Your task to perform on an android device: Search for logitech g502 on walmart.com, select the first entry, and add it to the cart. Image 0: 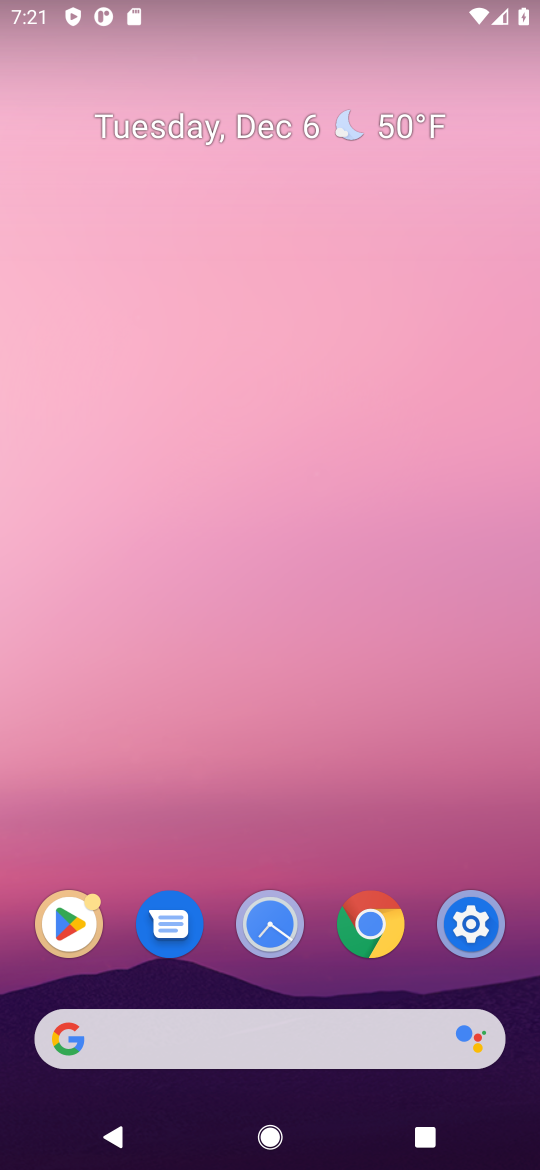
Step 0: click (329, 1002)
Your task to perform on an android device: Search for logitech g502 on walmart.com, select the first entry, and add it to the cart. Image 1: 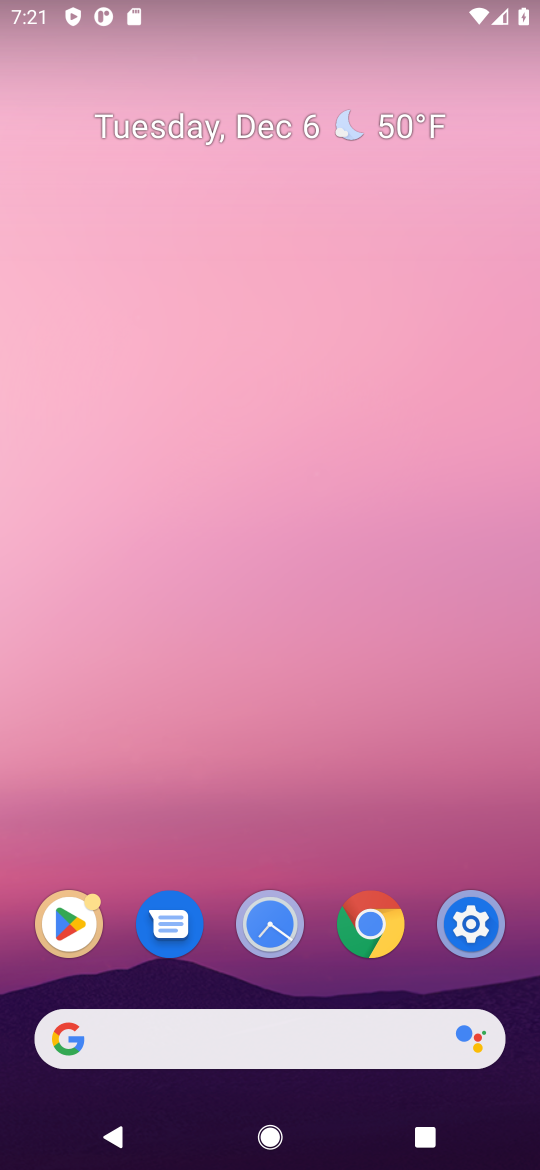
Step 1: click (329, 1018)
Your task to perform on an android device: Search for logitech g502 on walmart.com, select the first entry, and add it to the cart. Image 2: 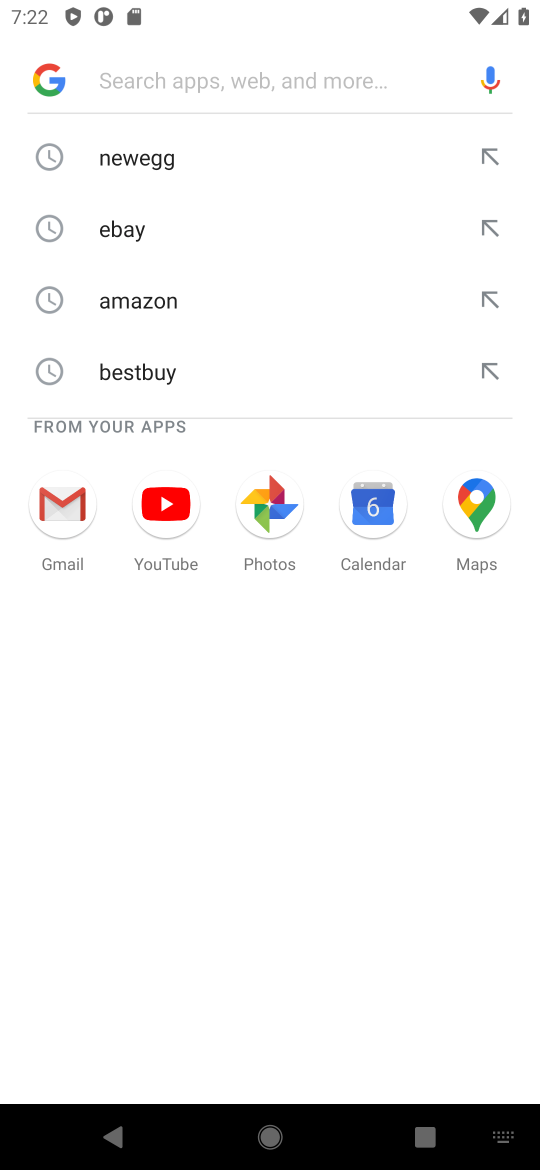
Step 2: type "walmart"
Your task to perform on an android device: Search for logitech g502 on walmart.com, select the first entry, and add it to the cart. Image 3: 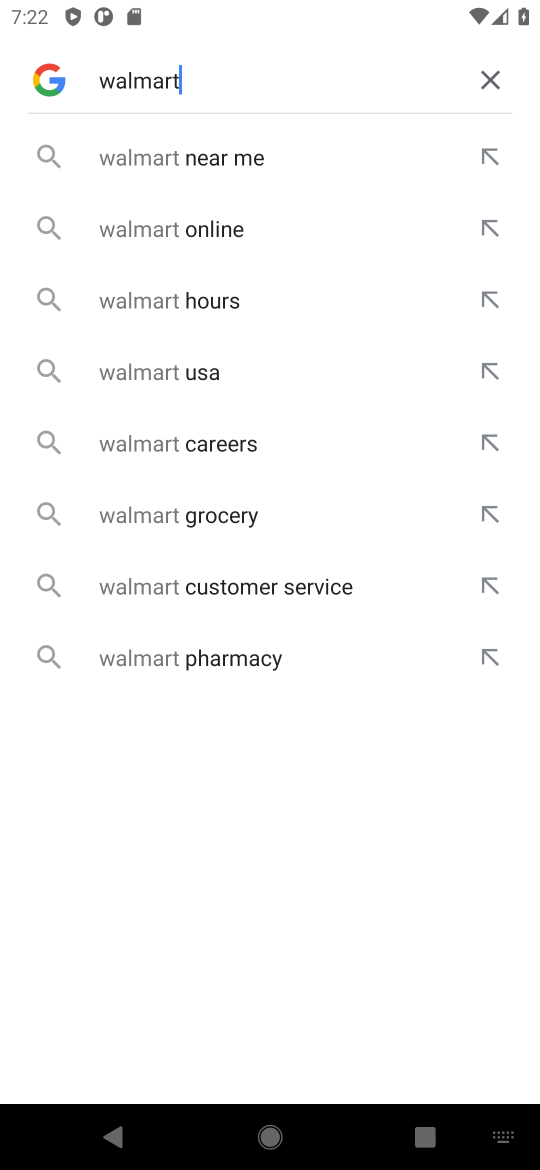
Step 3: click (177, 162)
Your task to perform on an android device: Search for logitech g502 on walmart.com, select the first entry, and add it to the cart. Image 4: 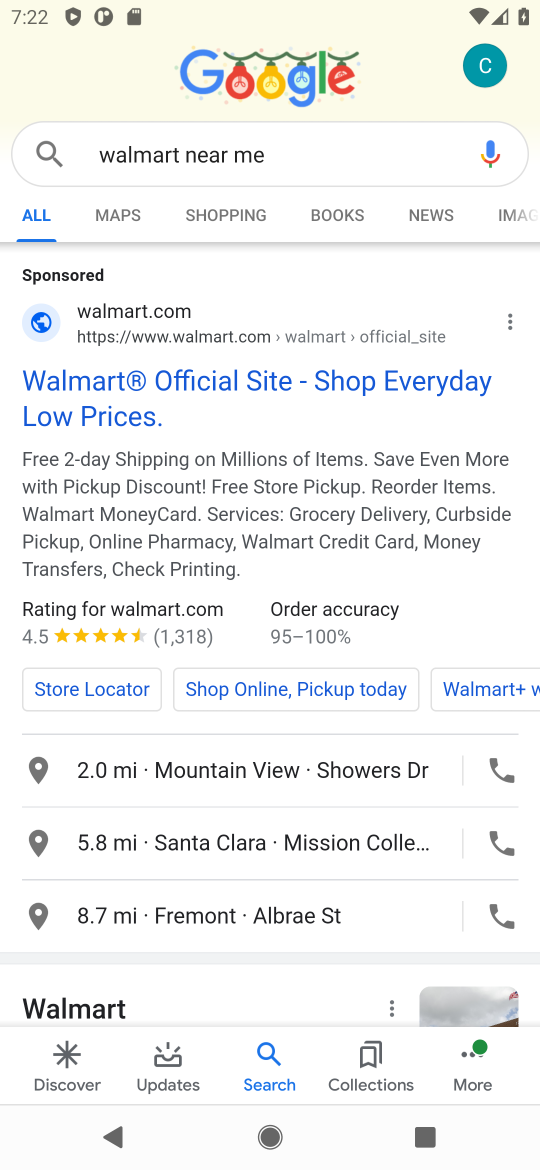
Step 4: click (144, 380)
Your task to perform on an android device: Search for logitech g502 on walmart.com, select the first entry, and add it to the cart. Image 5: 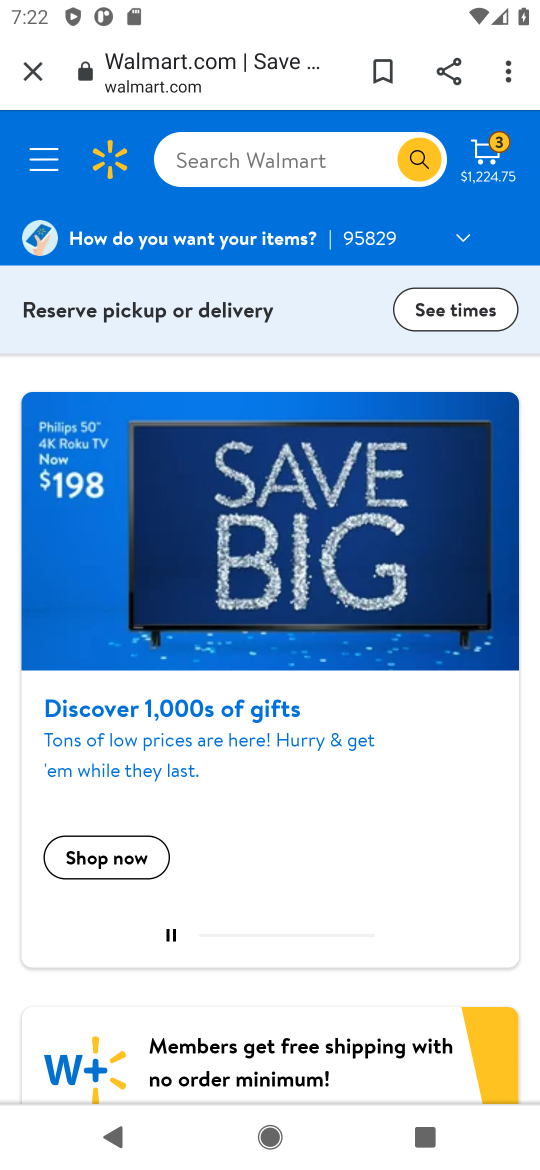
Step 5: click (216, 162)
Your task to perform on an android device: Search for logitech g502 on walmart.com, select the first entry, and add it to the cart. Image 6: 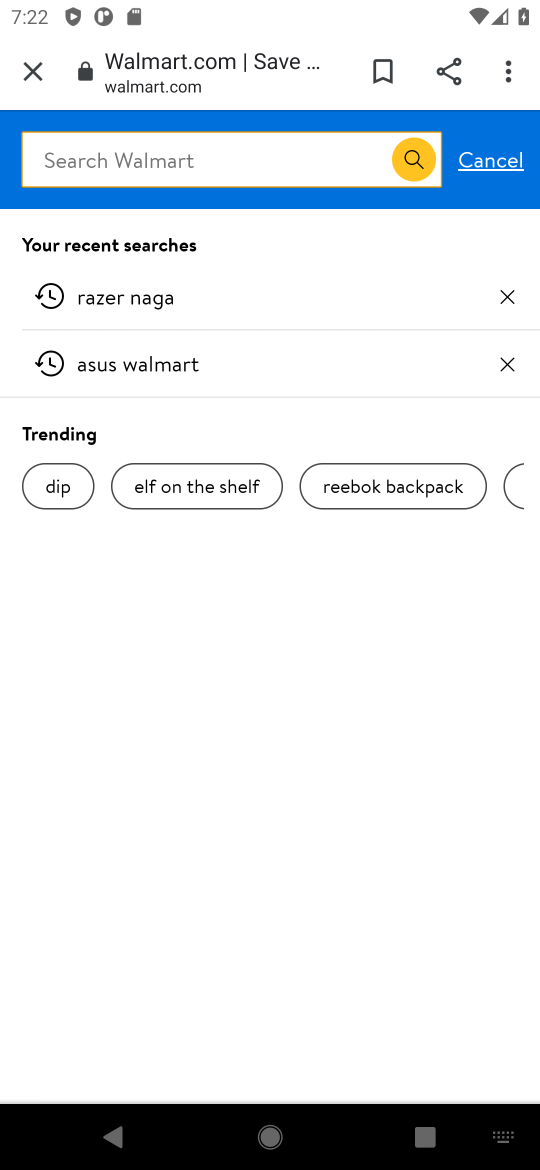
Step 6: type "logitech g pro"
Your task to perform on an android device: Search for logitech g502 on walmart.com, select the first entry, and add it to the cart. Image 7: 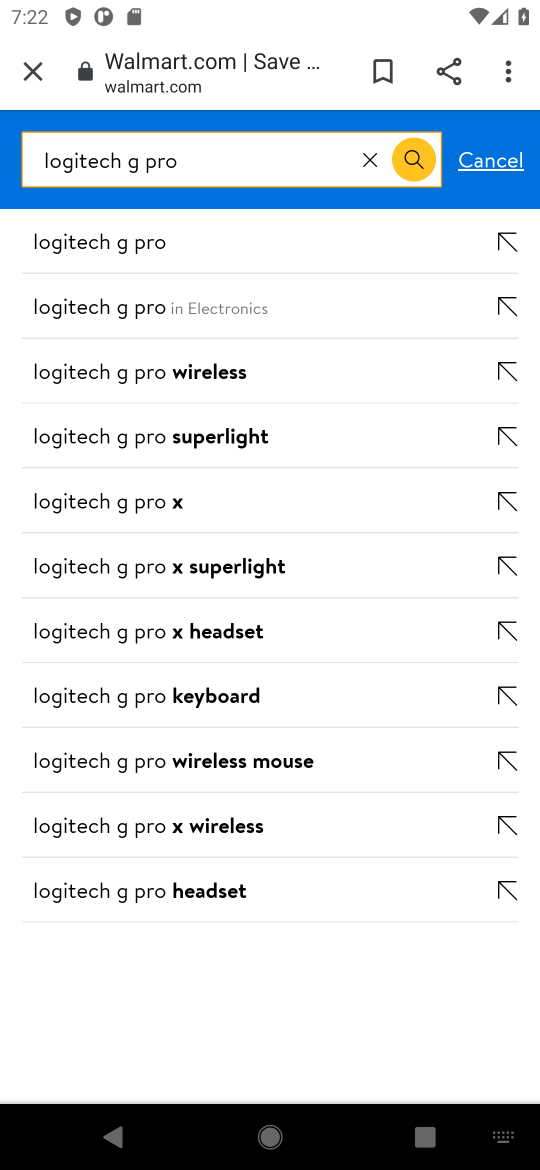
Step 7: click (157, 228)
Your task to perform on an android device: Search for logitech g502 on walmart.com, select the first entry, and add it to the cart. Image 8: 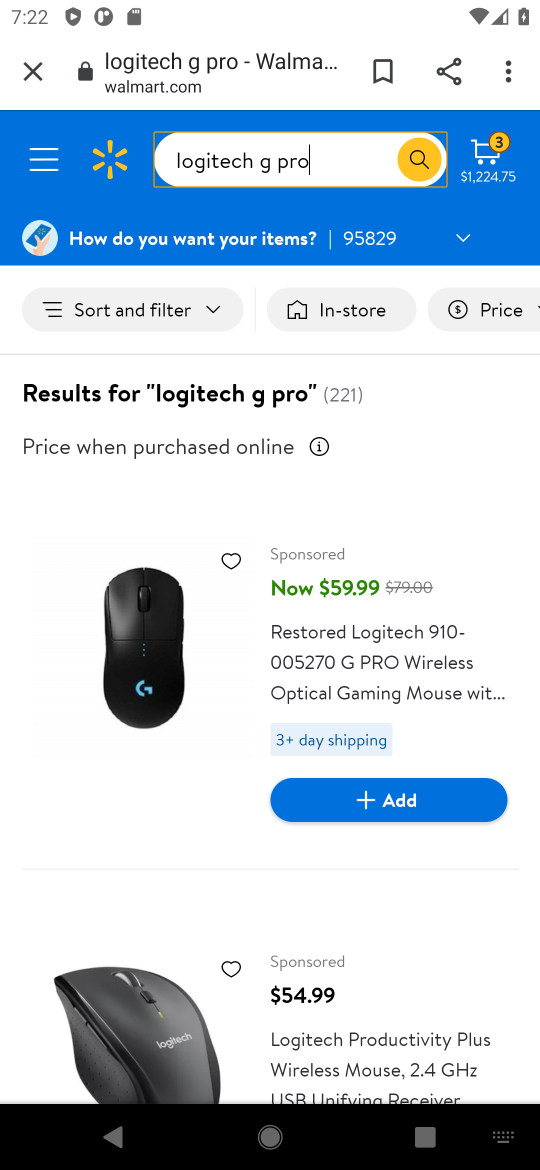
Step 8: click (293, 804)
Your task to perform on an android device: Search for logitech g502 on walmart.com, select the first entry, and add it to the cart. Image 9: 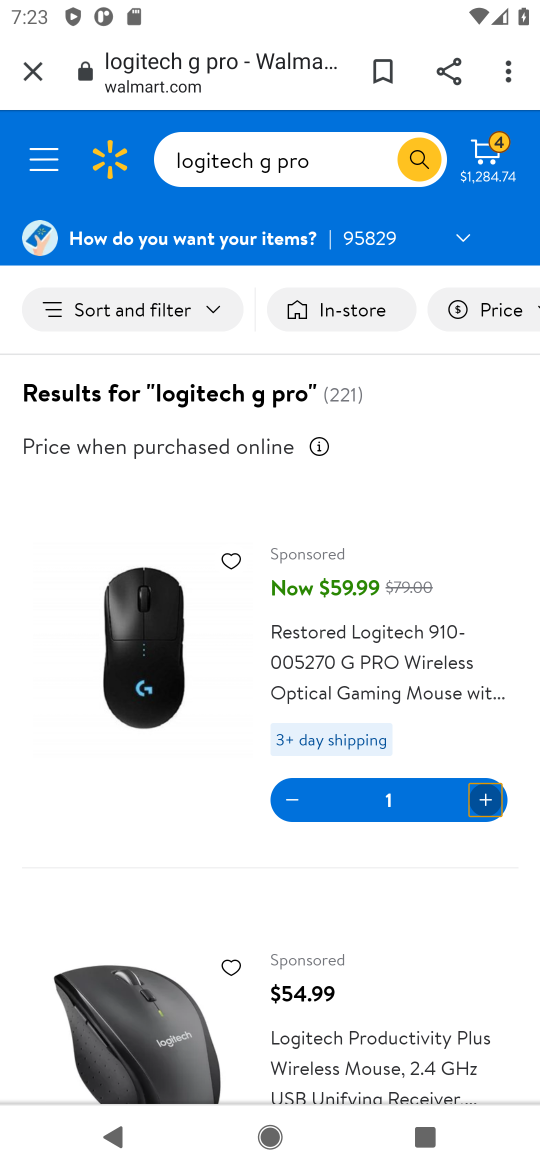
Step 9: task complete